Your task to perform on an android device: open app "Walmart Shopping & Grocery" Image 0: 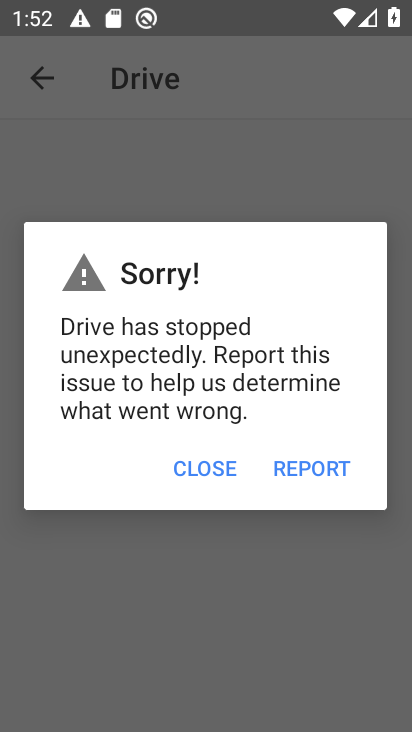
Step 0: press home button
Your task to perform on an android device: open app "Walmart Shopping & Grocery" Image 1: 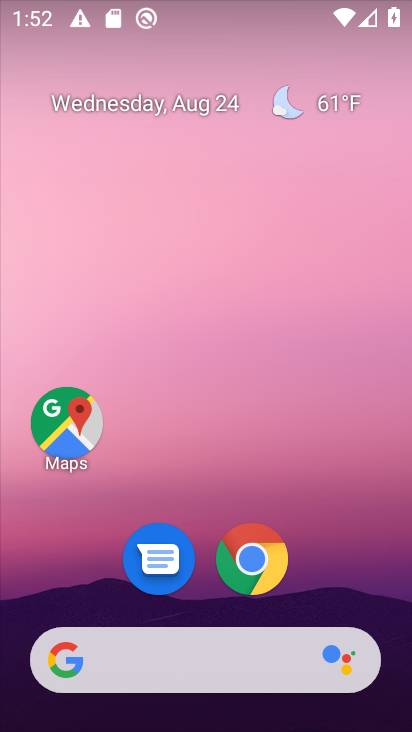
Step 1: drag from (210, 630) to (232, 124)
Your task to perform on an android device: open app "Walmart Shopping & Grocery" Image 2: 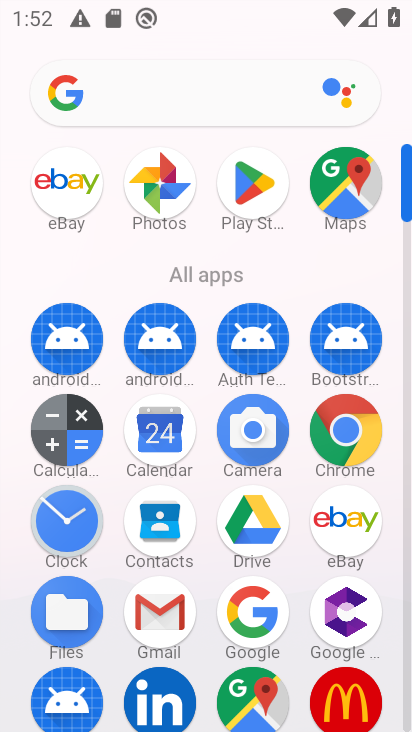
Step 2: click (256, 203)
Your task to perform on an android device: open app "Walmart Shopping & Grocery" Image 3: 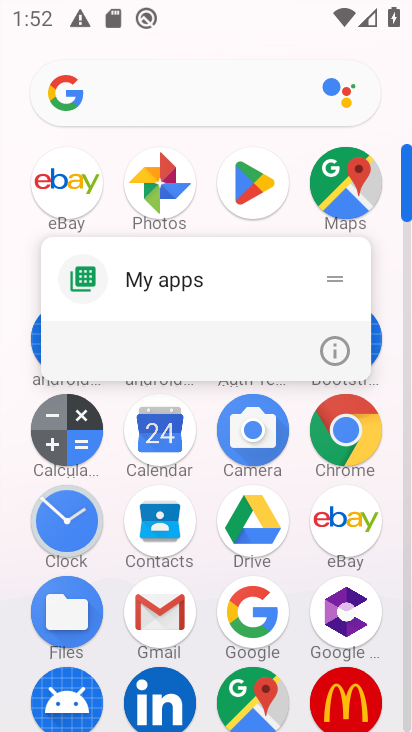
Step 3: click (247, 187)
Your task to perform on an android device: open app "Walmart Shopping & Grocery" Image 4: 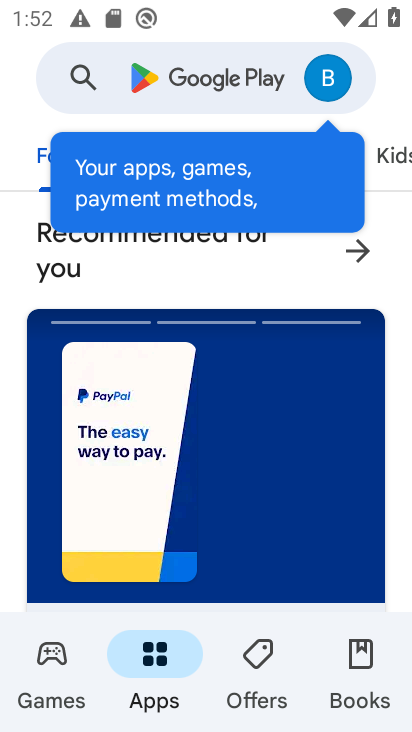
Step 4: click (181, 78)
Your task to perform on an android device: open app "Walmart Shopping & Grocery" Image 5: 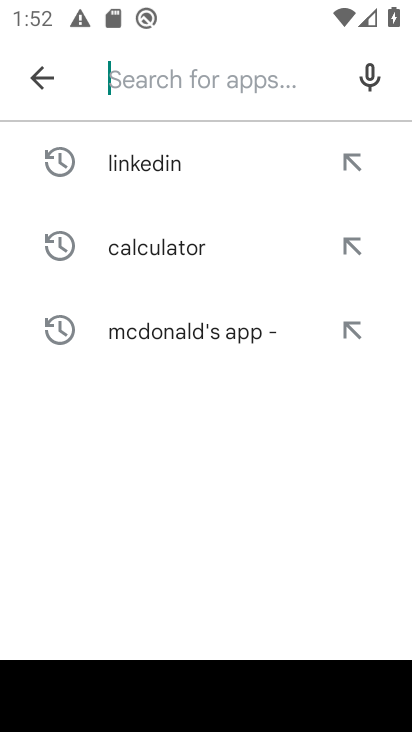
Step 5: type "Walmart Shopping & Grocery"
Your task to perform on an android device: open app "Walmart Shopping & Grocery" Image 6: 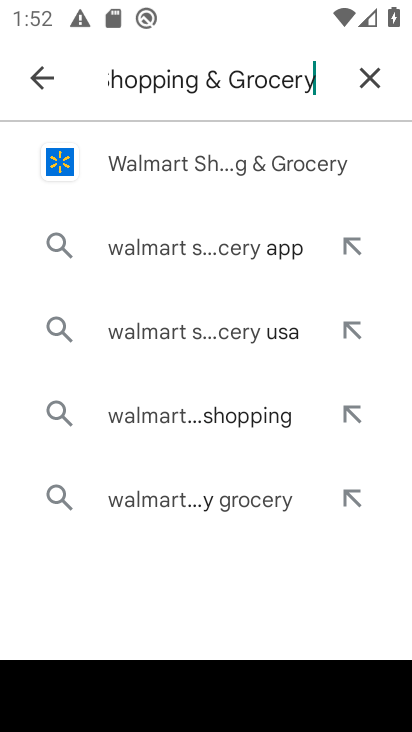
Step 6: click (160, 166)
Your task to perform on an android device: open app "Walmart Shopping & Grocery" Image 7: 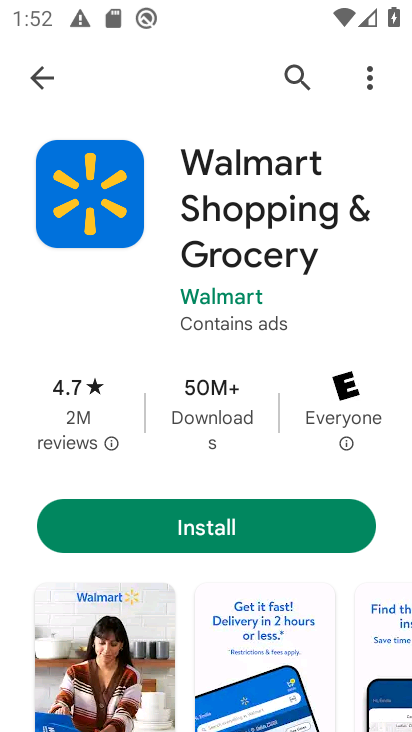
Step 7: click (257, 529)
Your task to perform on an android device: open app "Walmart Shopping & Grocery" Image 8: 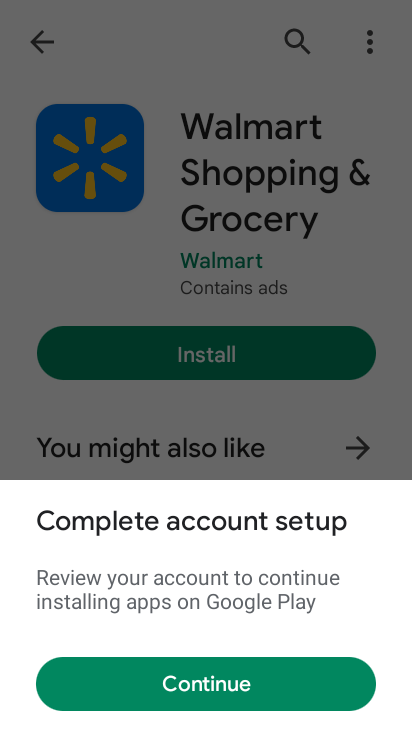
Step 8: click (230, 694)
Your task to perform on an android device: open app "Walmart Shopping & Grocery" Image 9: 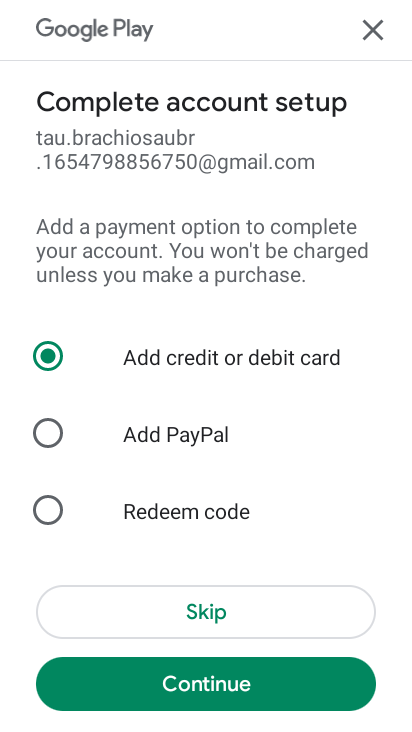
Step 9: click (198, 628)
Your task to perform on an android device: open app "Walmart Shopping & Grocery" Image 10: 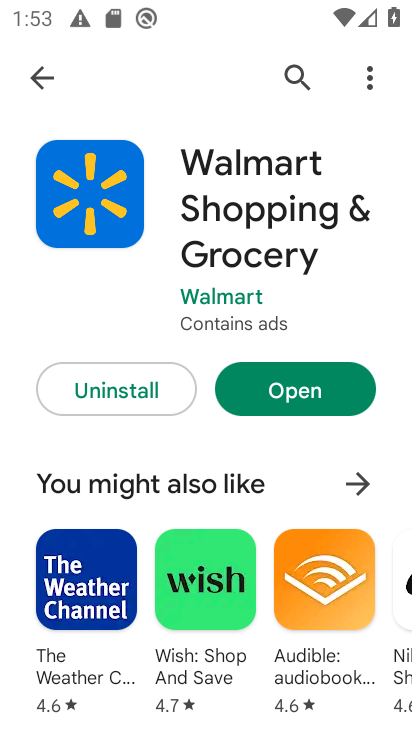
Step 10: click (341, 376)
Your task to perform on an android device: open app "Walmart Shopping & Grocery" Image 11: 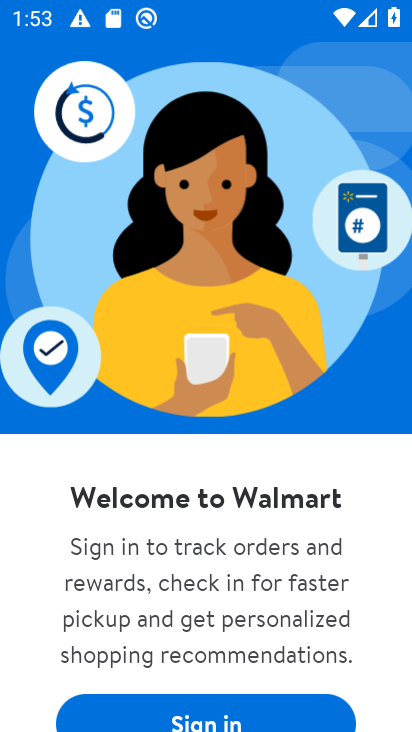
Step 11: task complete